Your task to perform on an android device: Open ESPN.com Image 0: 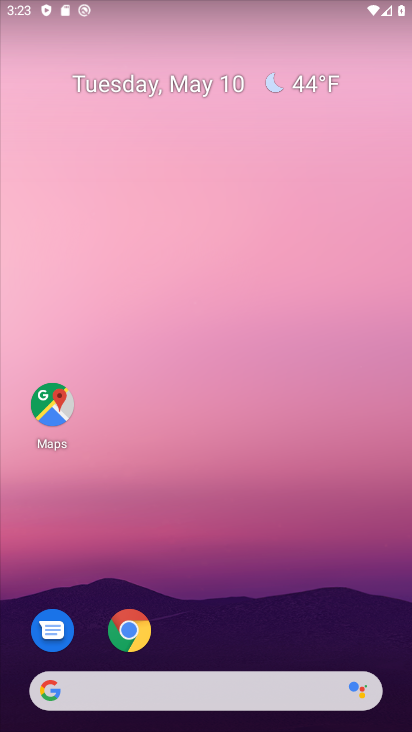
Step 0: click (150, 621)
Your task to perform on an android device: Open ESPN.com Image 1: 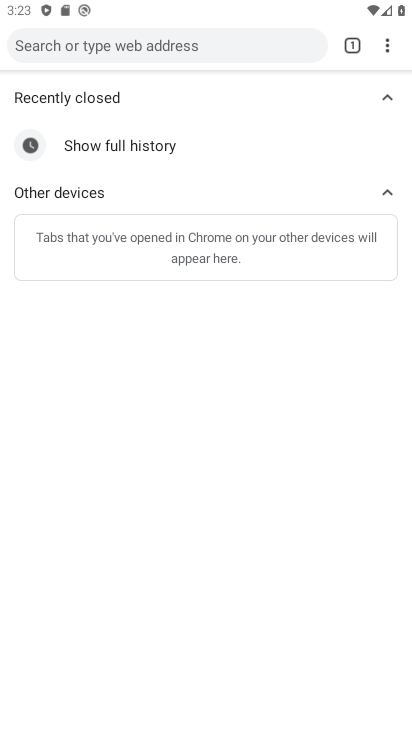
Step 1: press back button
Your task to perform on an android device: Open ESPN.com Image 2: 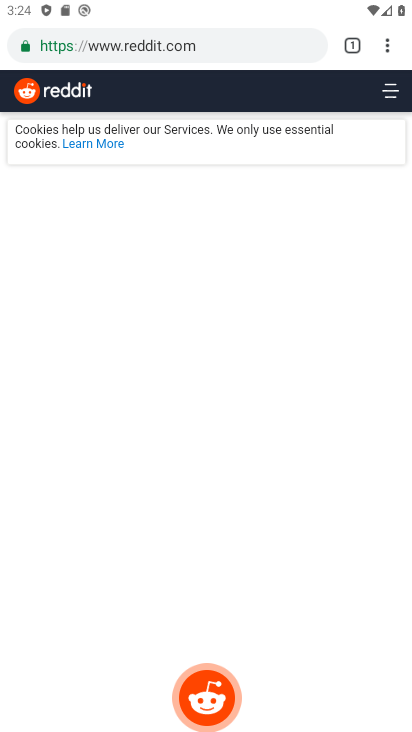
Step 2: click (153, 57)
Your task to perform on an android device: Open ESPN.com Image 3: 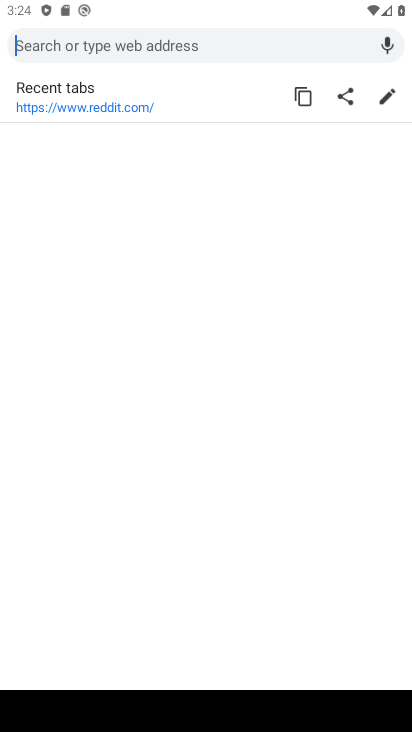
Step 3: type "espn.com"
Your task to perform on an android device: Open ESPN.com Image 4: 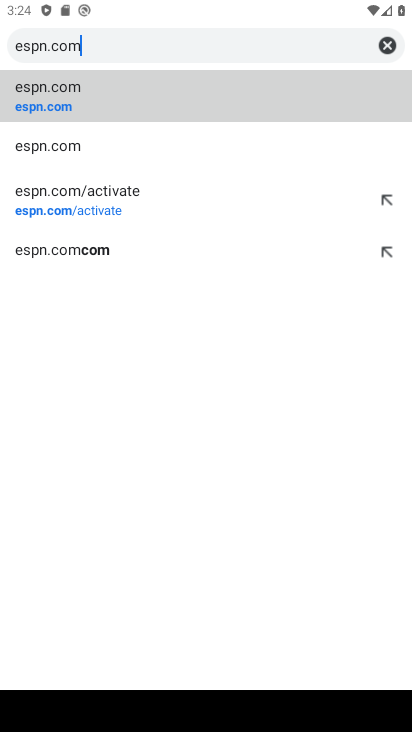
Step 4: click (89, 96)
Your task to perform on an android device: Open ESPN.com Image 5: 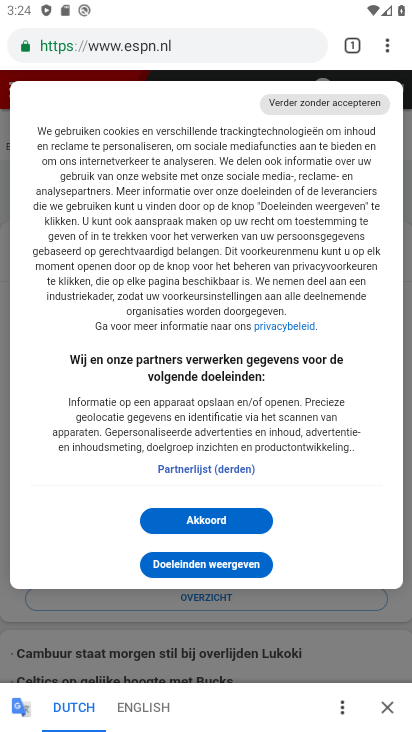
Step 5: task complete